Your task to perform on an android device: Open battery settings Image 0: 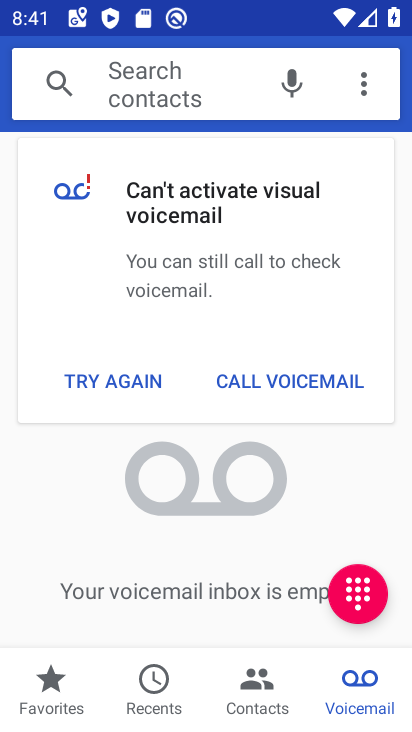
Step 0: press home button
Your task to perform on an android device: Open battery settings Image 1: 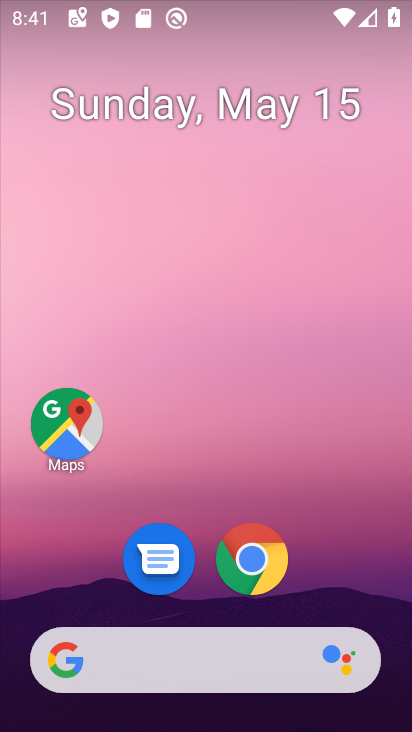
Step 1: drag from (333, 570) to (333, 91)
Your task to perform on an android device: Open battery settings Image 2: 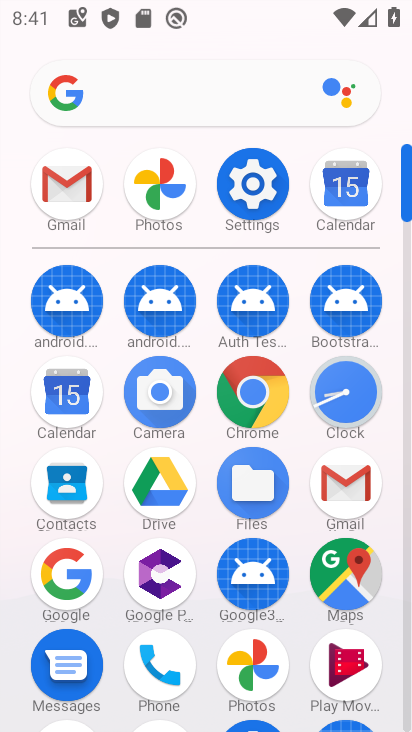
Step 2: click (270, 171)
Your task to perform on an android device: Open battery settings Image 3: 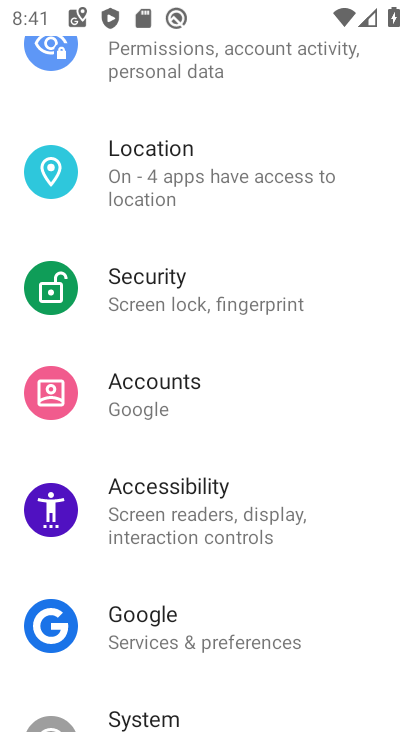
Step 3: drag from (252, 293) to (318, 724)
Your task to perform on an android device: Open battery settings Image 4: 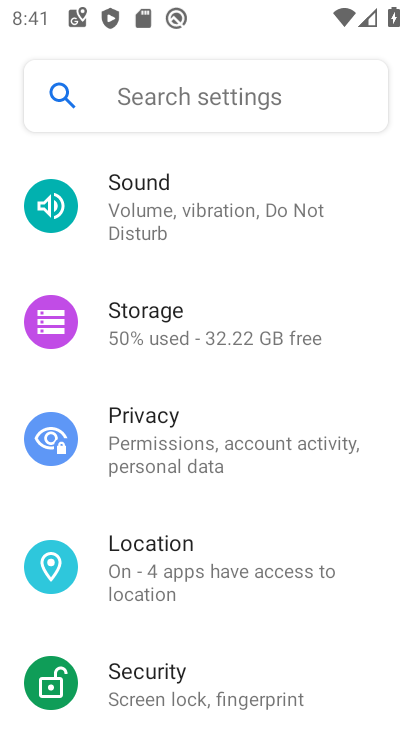
Step 4: drag from (273, 314) to (274, 723)
Your task to perform on an android device: Open battery settings Image 5: 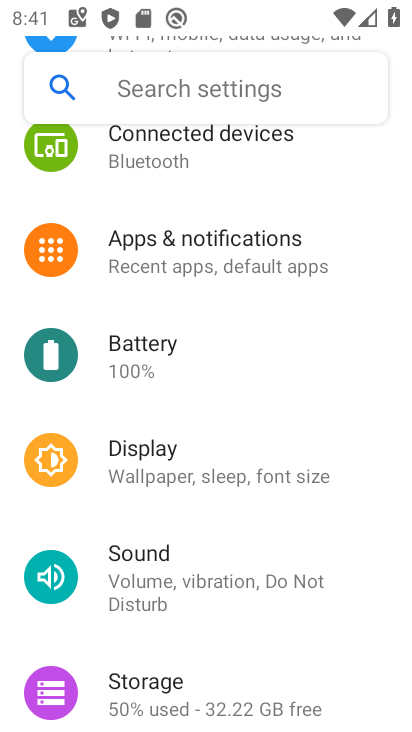
Step 5: click (230, 352)
Your task to perform on an android device: Open battery settings Image 6: 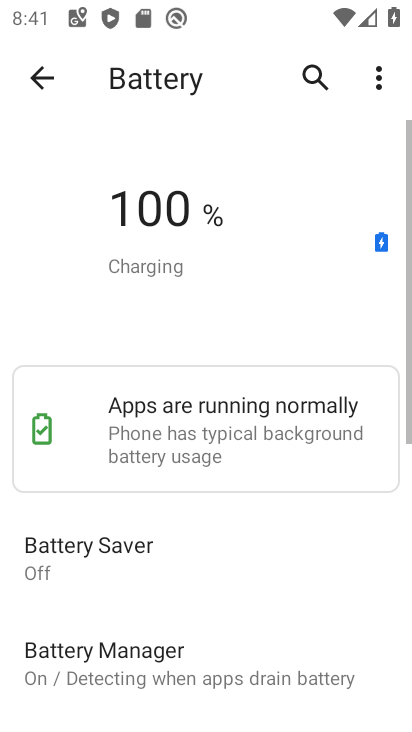
Step 6: task complete